Your task to perform on an android device: Open maps Image 0: 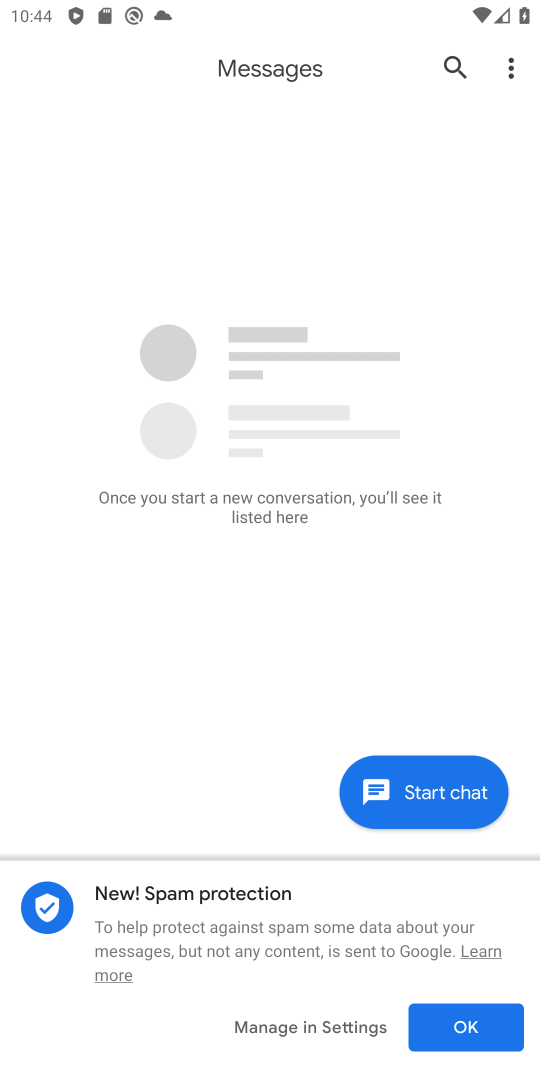
Step 0: press home button
Your task to perform on an android device: Open maps Image 1: 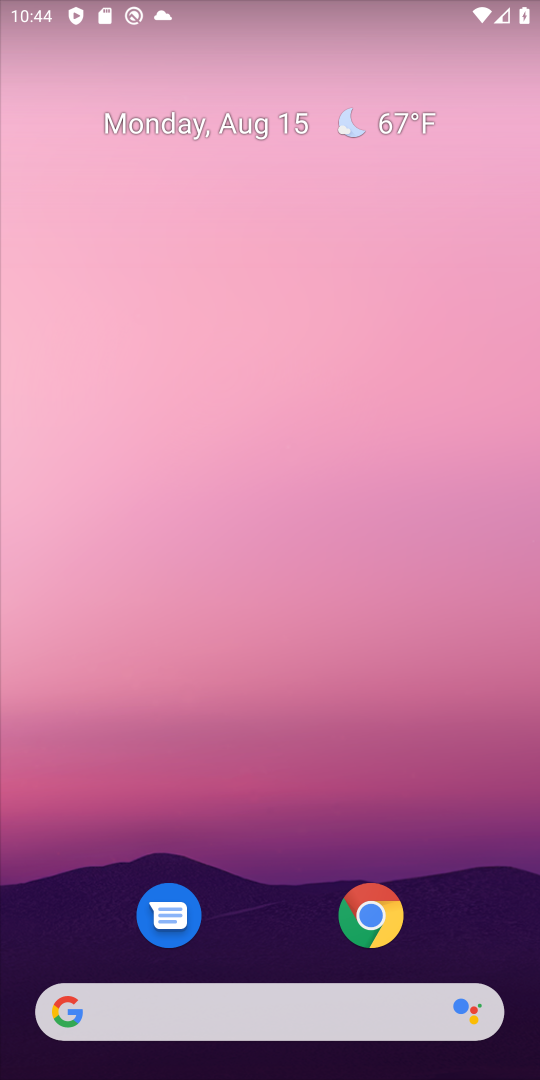
Step 1: drag from (307, 852) to (273, 144)
Your task to perform on an android device: Open maps Image 2: 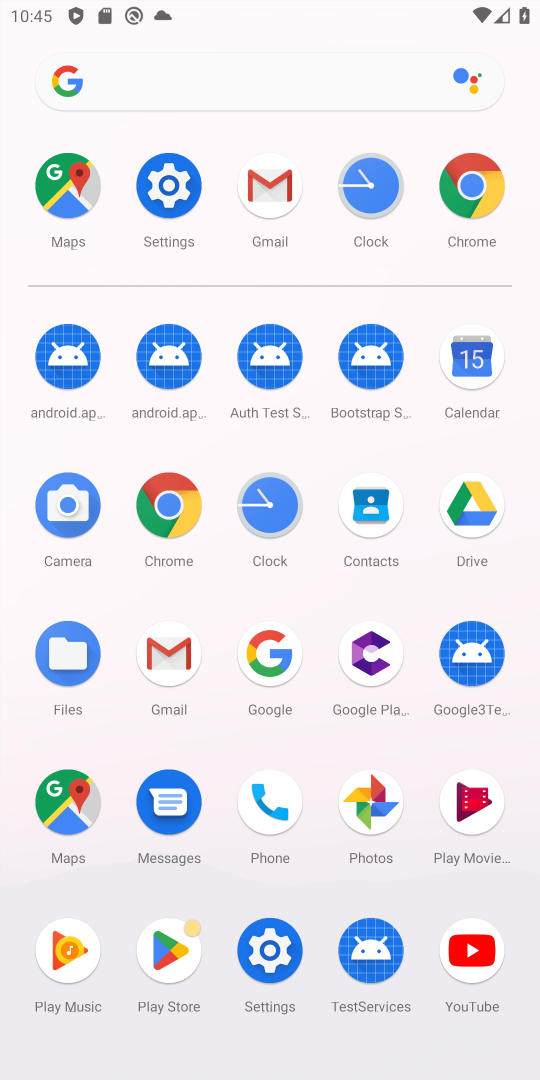
Step 2: click (44, 789)
Your task to perform on an android device: Open maps Image 3: 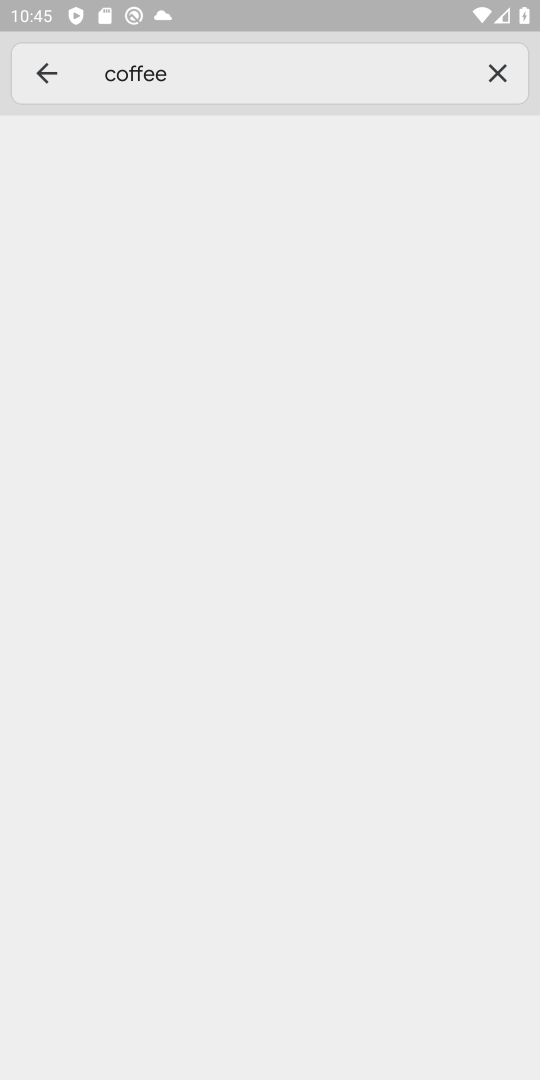
Step 3: click (56, 78)
Your task to perform on an android device: Open maps Image 4: 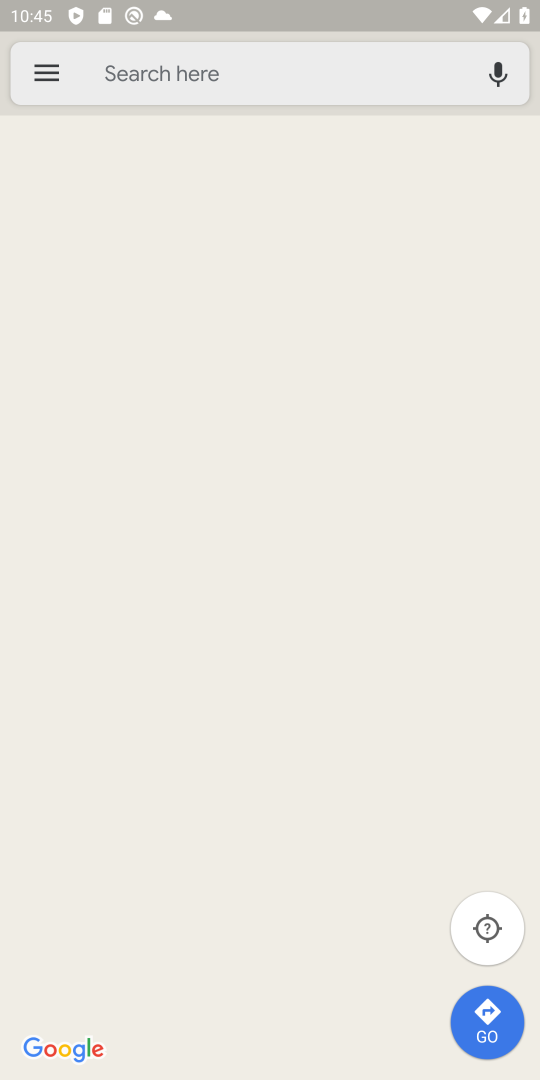
Step 4: task complete